Your task to perform on an android device: turn pop-ups on in chrome Image 0: 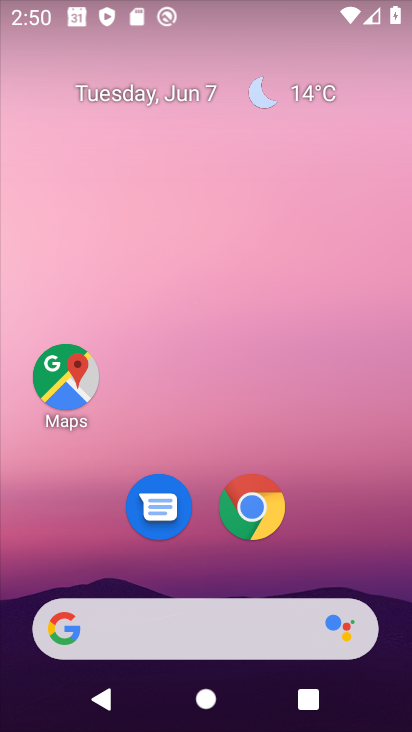
Step 0: click (256, 501)
Your task to perform on an android device: turn pop-ups on in chrome Image 1: 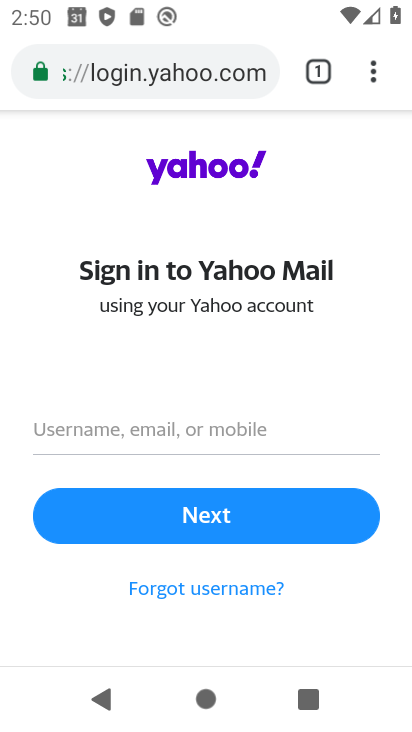
Step 1: drag from (364, 58) to (223, 519)
Your task to perform on an android device: turn pop-ups on in chrome Image 2: 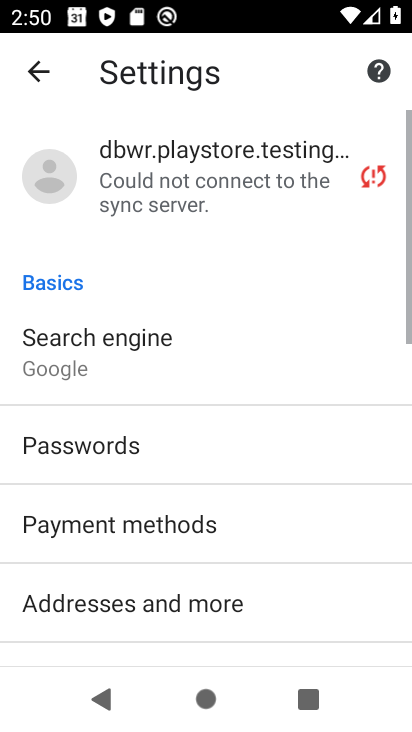
Step 2: drag from (228, 487) to (353, 49)
Your task to perform on an android device: turn pop-ups on in chrome Image 3: 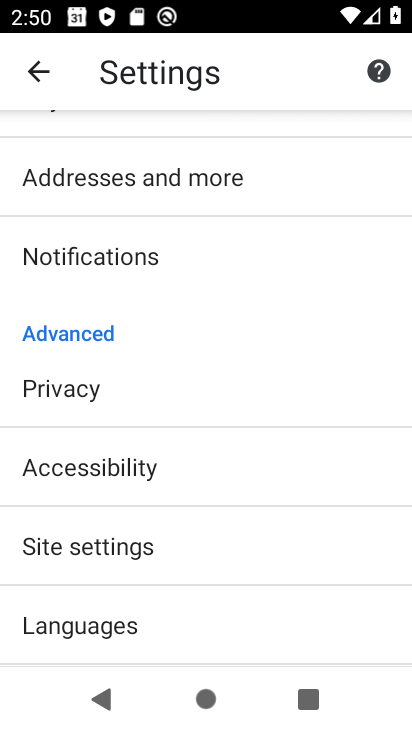
Step 3: click (126, 546)
Your task to perform on an android device: turn pop-ups on in chrome Image 4: 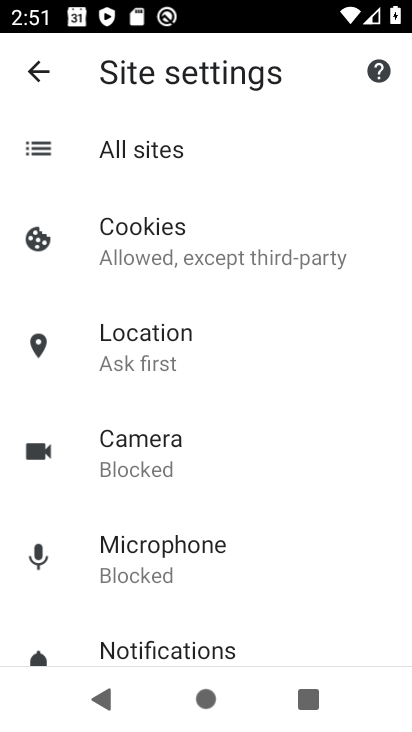
Step 4: drag from (314, 532) to (390, 132)
Your task to perform on an android device: turn pop-ups on in chrome Image 5: 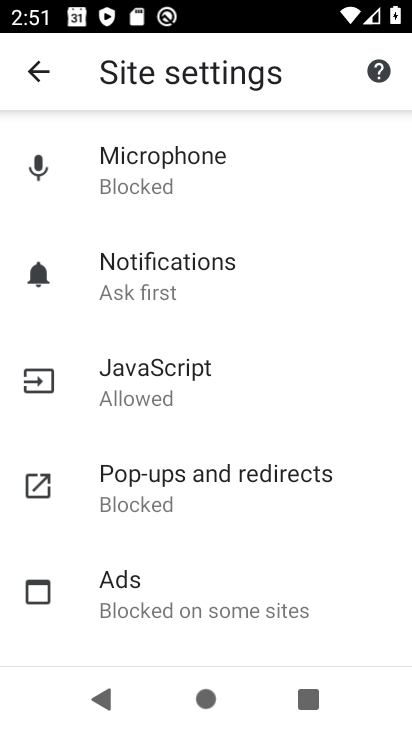
Step 5: click (235, 475)
Your task to perform on an android device: turn pop-ups on in chrome Image 6: 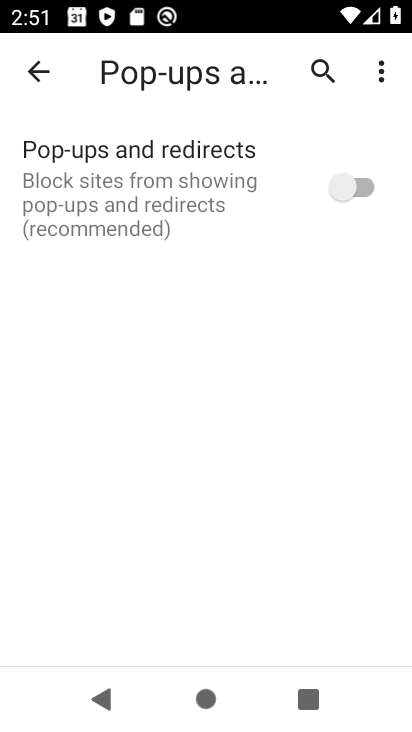
Step 6: click (352, 182)
Your task to perform on an android device: turn pop-ups on in chrome Image 7: 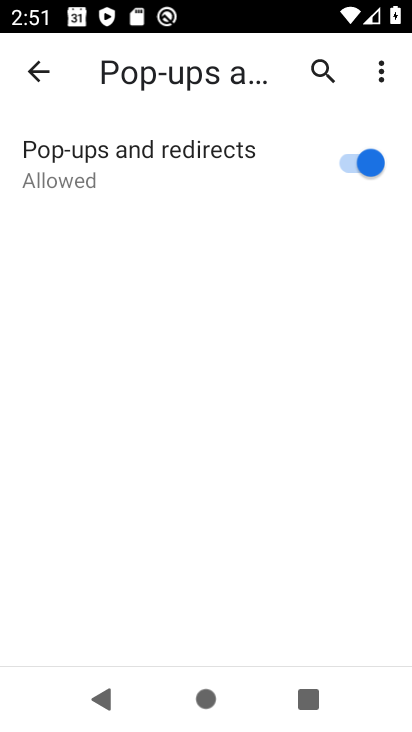
Step 7: task complete